Your task to perform on an android device: Open Google Image 0: 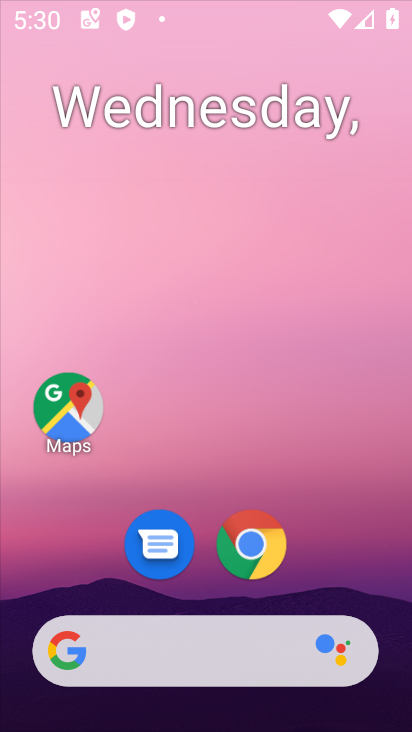
Step 0: drag from (394, 714) to (338, 163)
Your task to perform on an android device: Open Google Image 1: 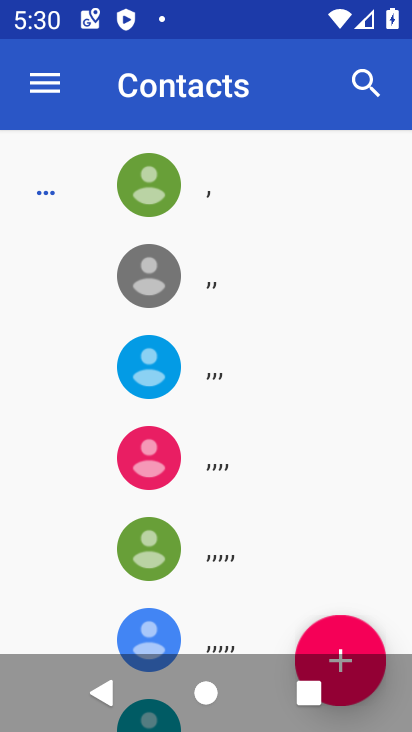
Step 1: press home button
Your task to perform on an android device: Open Google Image 2: 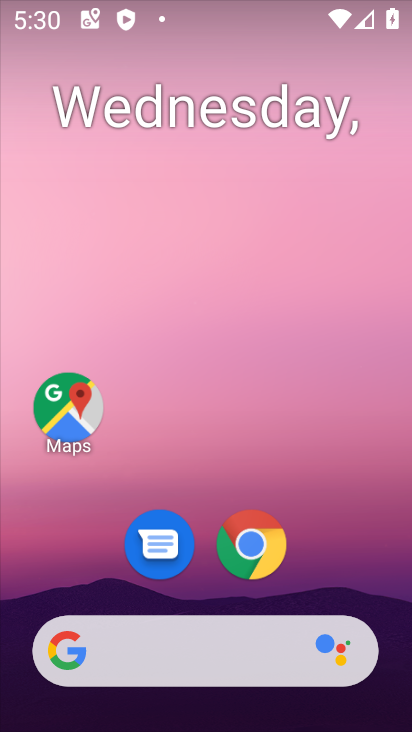
Step 2: drag from (393, 577) to (349, 125)
Your task to perform on an android device: Open Google Image 3: 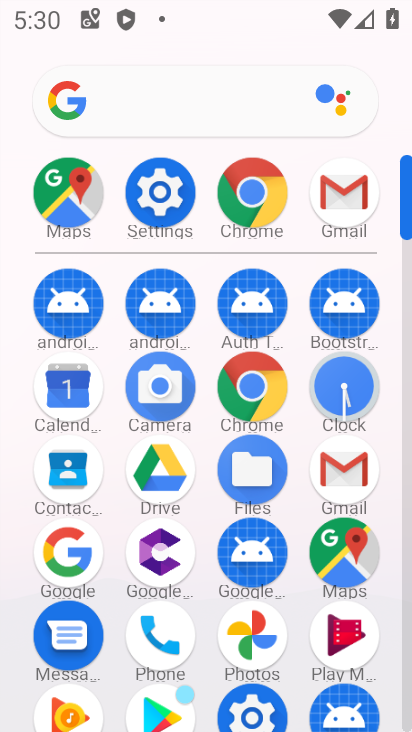
Step 3: click (75, 559)
Your task to perform on an android device: Open Google Image 4: 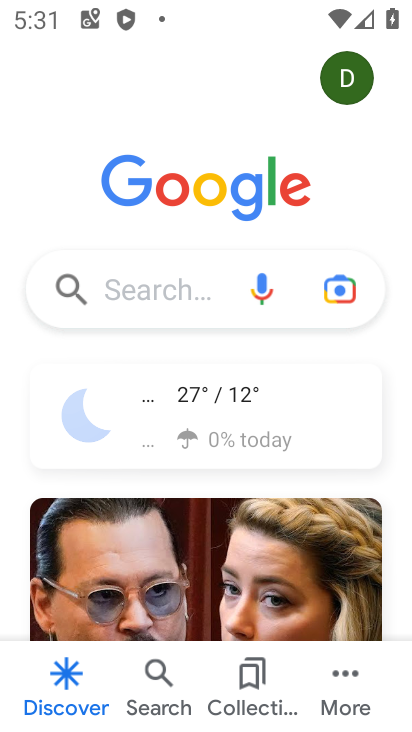
Step 4: task complete